Your task to perform on an android device: turn off airplane mode Image 0: 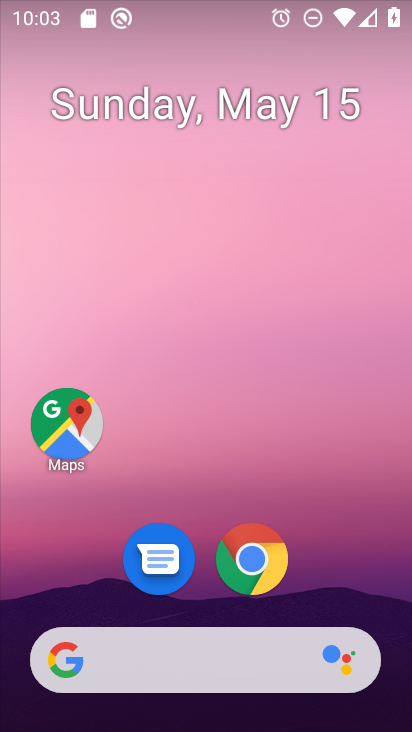
Step 0: drag from (355, 566) to (329, 35)
Your task to perform on an android device: turn off airplane mode Image 1: 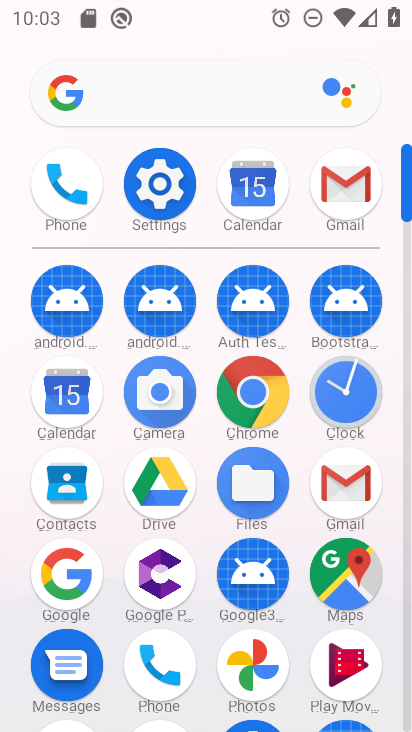
Step 1: click (172, 199)
Your task to perform on an android device: turn off airplane mode Image 2: 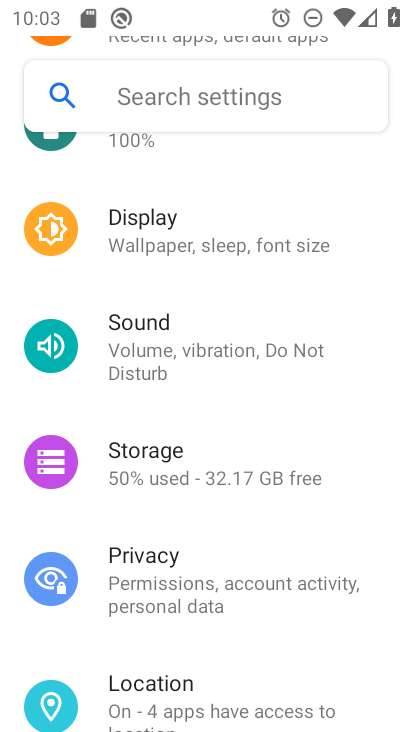
Step 2: drag from (163, 224) to (153, 727)
Your task to perform on an android device: turn off airplane mode Image 3: 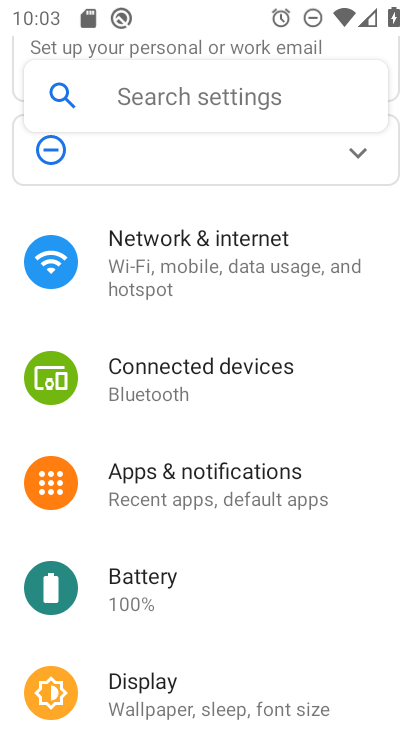
Step 3: drag from (199, 178) to (188, 331)
Your task to perform on an android device: turn off airplane mode Image 4: 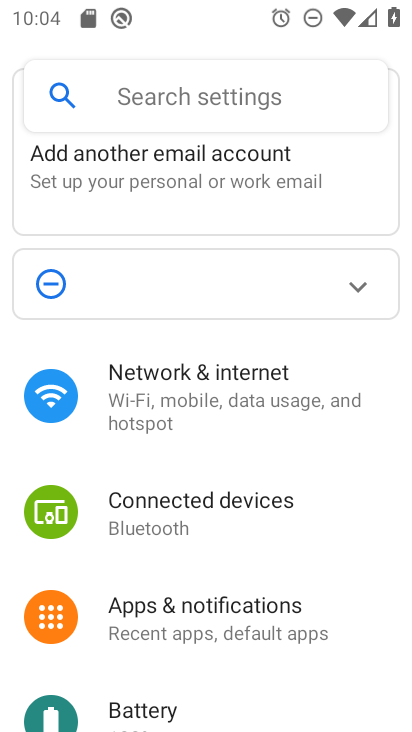
Step 4: click (202, 311)
Your task to perform on an android device: turn off airplane mode Image 5: 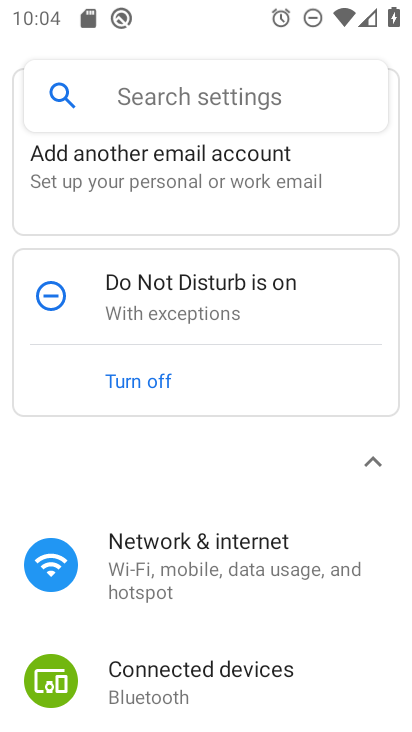
Step 5: click (155, 393)
Your task to perform on an android device: turn off airplane mode Image 6: 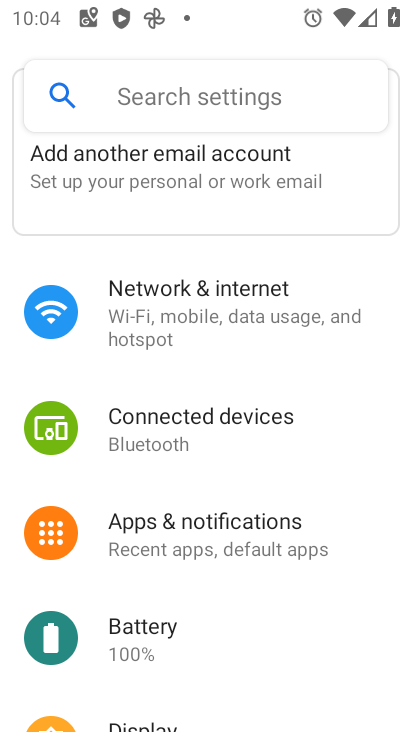
Step 6: click (214, 586)
Your task to perform on an android device: turn off airplane mode Image 7: 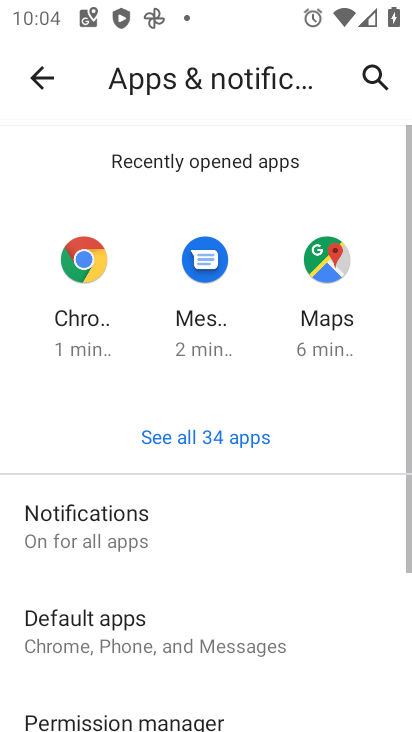
Step 7: click (26, 81)
Your task to perform on an android device: turn off airplane mode Image 8: 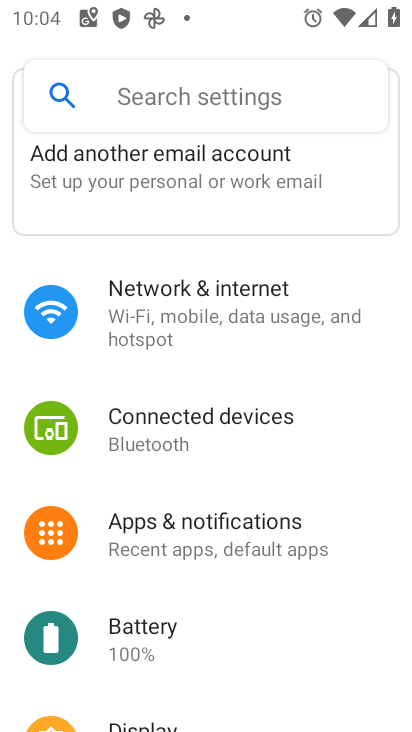
Step 8: click (217, 310)
Your task to perform on an android device: turn off airplane mode Image 9: 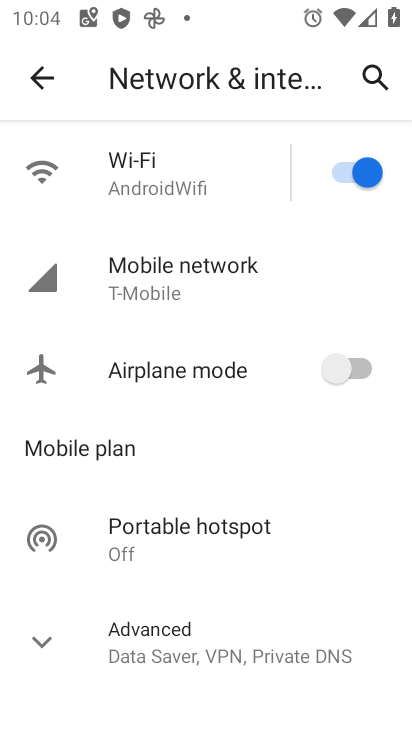
Step 9: task complete